Your task to perform on an android device: all mails in gmail Image 0: 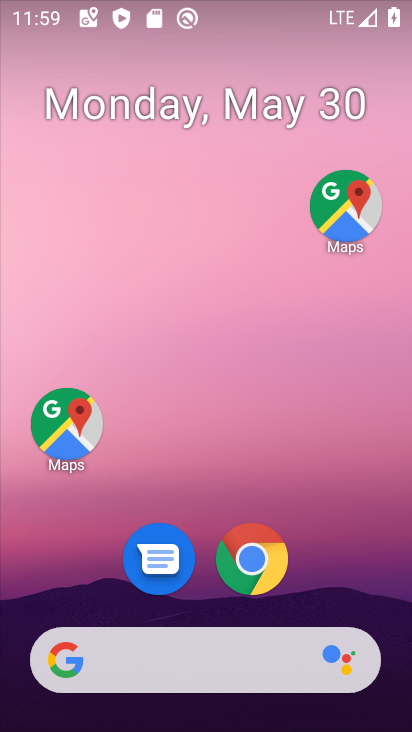
Step 0: drag from (326, 500) to (333, 64)
Your task to perform on an android device: all mails in gmail Image 1: 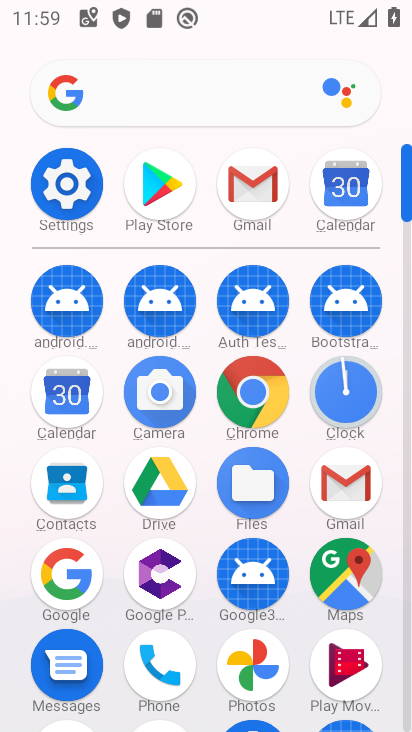
Step 1: click (267, 189)
Your task to perform on an android device: all mails in gmail Image 2: 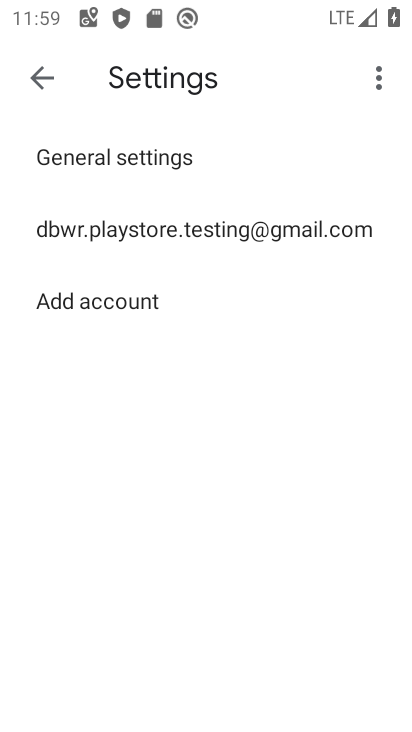
Step 2: click (60, 73)
Your task to perform on an android device: all mails in gmail Image 3: 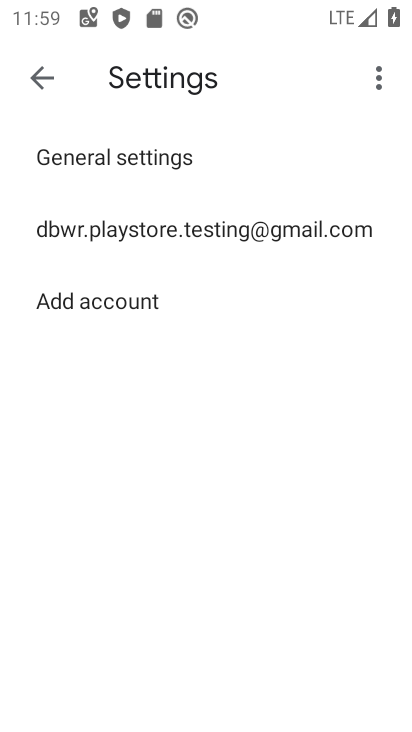
Step 3: click (60, 72)
Your task to perform on an android device: all mails in gmail Image 4: 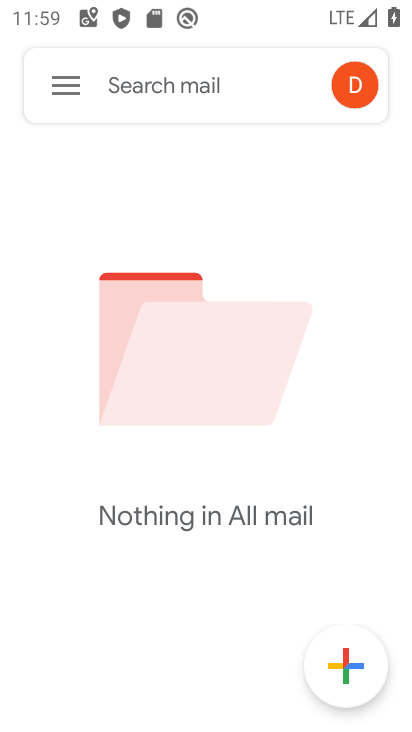
Step 4: click (60, 73)
Your task to perform on an android device: all mails in gmail Image 5: 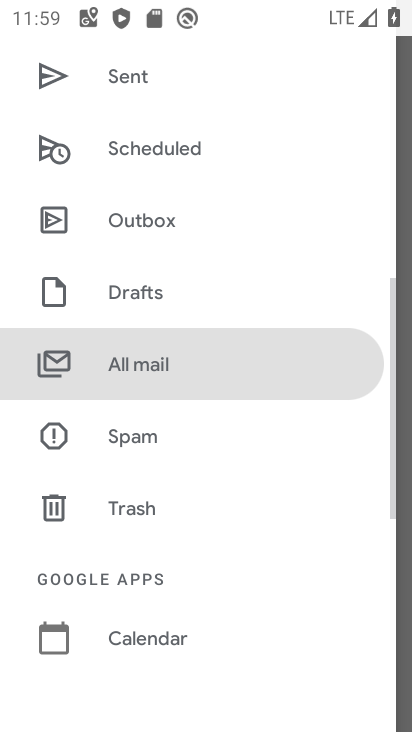
Step 5: click (149, 371)
Your task to perform on an android device: all mails in gmail Image 6: 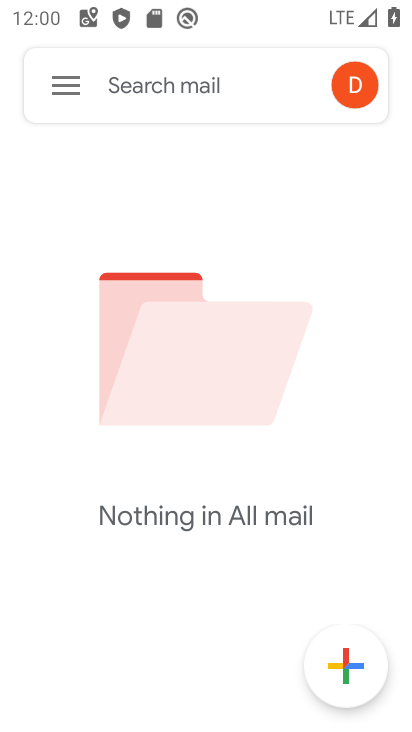
Step 6: task complete